Your task to perform on an android device: turn on sleep mode Image 0: 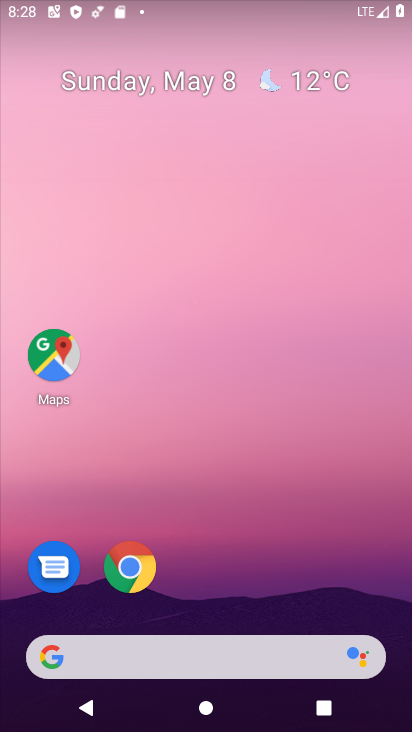
Step 0: drag from (232, 640) to (407, 226)
Your task to perform on an android device: turn on sleep mode Image 1: 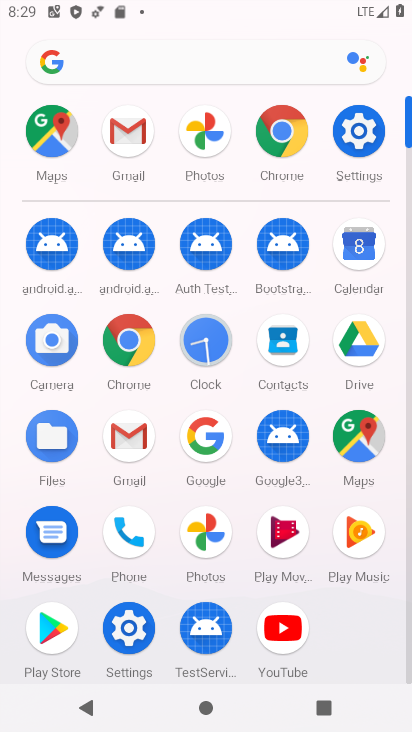
Step 1: click (358, 142)
Your task to perform on an android device: turn on sleep mode Image 2: 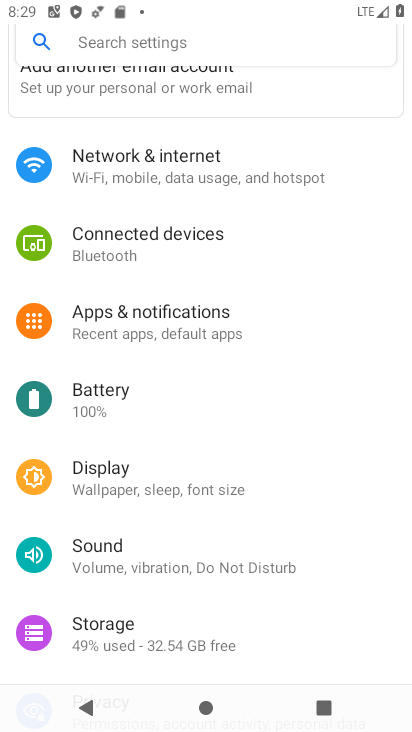
Step 2: click (144, 485)
Your task to perform on an android device: turn on sleep mode Image 3: 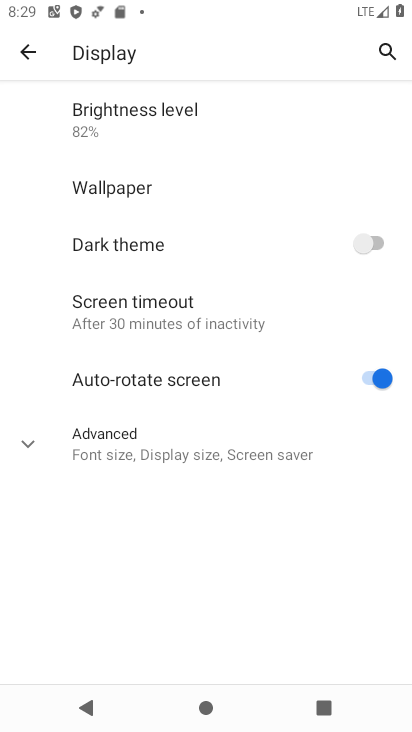
Step 3: click (189, 456)
Your task to perform on an android device: turn on sleep mode Image 4: 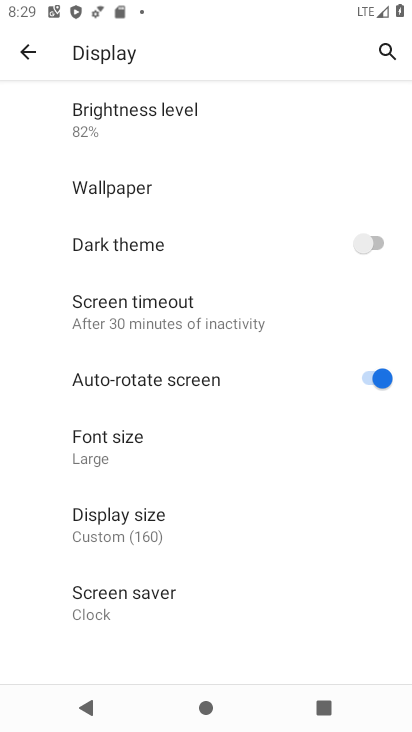
Step 4: task complete